Your task to perform on an android device: Show the shopping cart on amazon.com. Add razer blade to the cart on amazon.com Image 0: 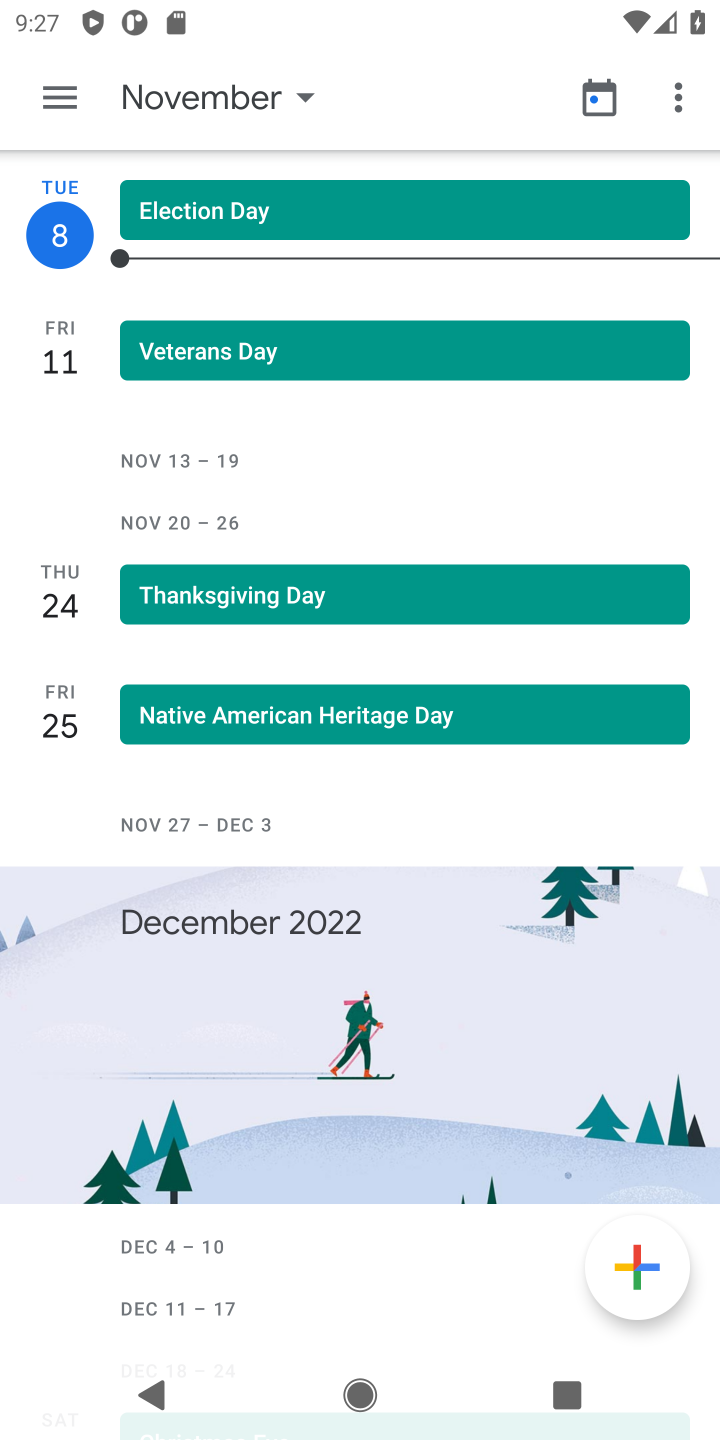
Step 0: press home button
Your task to perform on an android device: Show the shopping cart on amazon.com. Add razer blade to the cart on amazon.com Image 1: 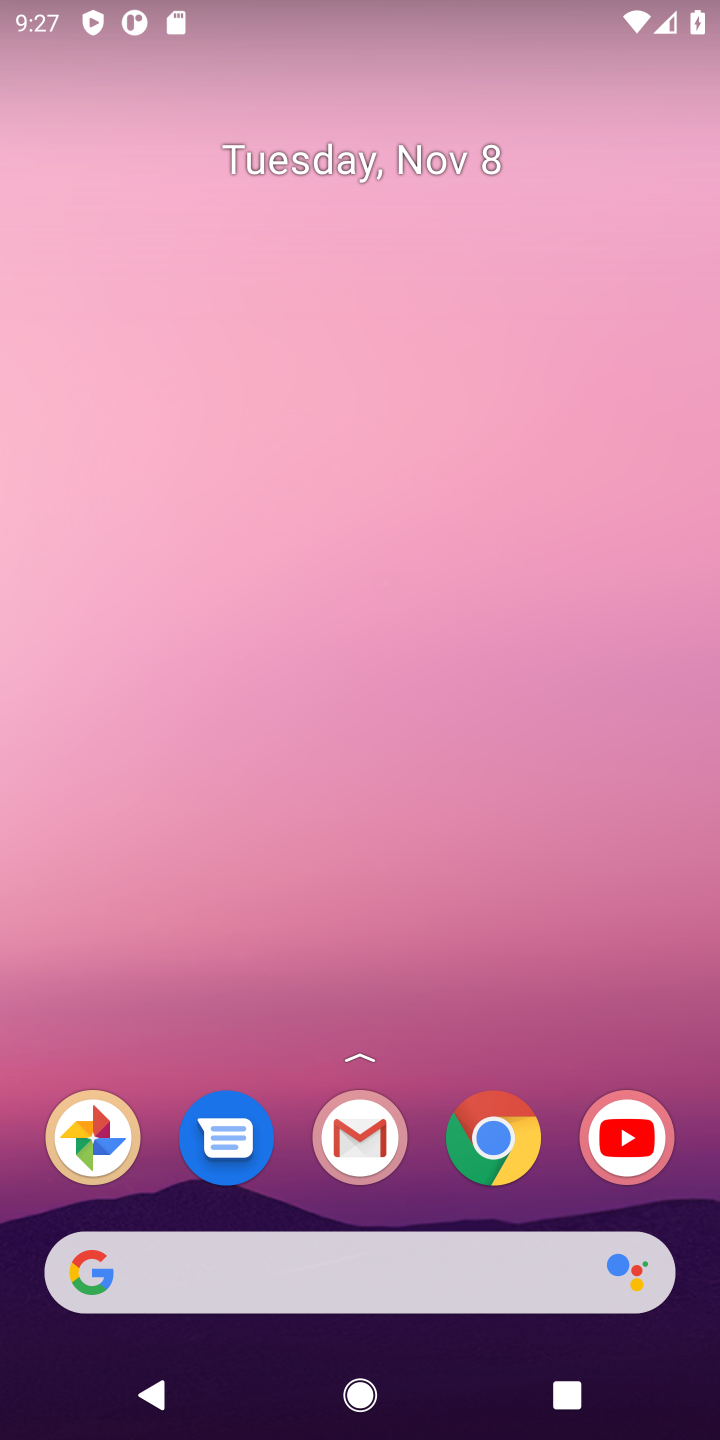
Step 1: click (480, 1143)
Your task to perform on an android device: Show the shopping cart on amazon.com. Add razer blade to the cart on amazon.com Image 2: 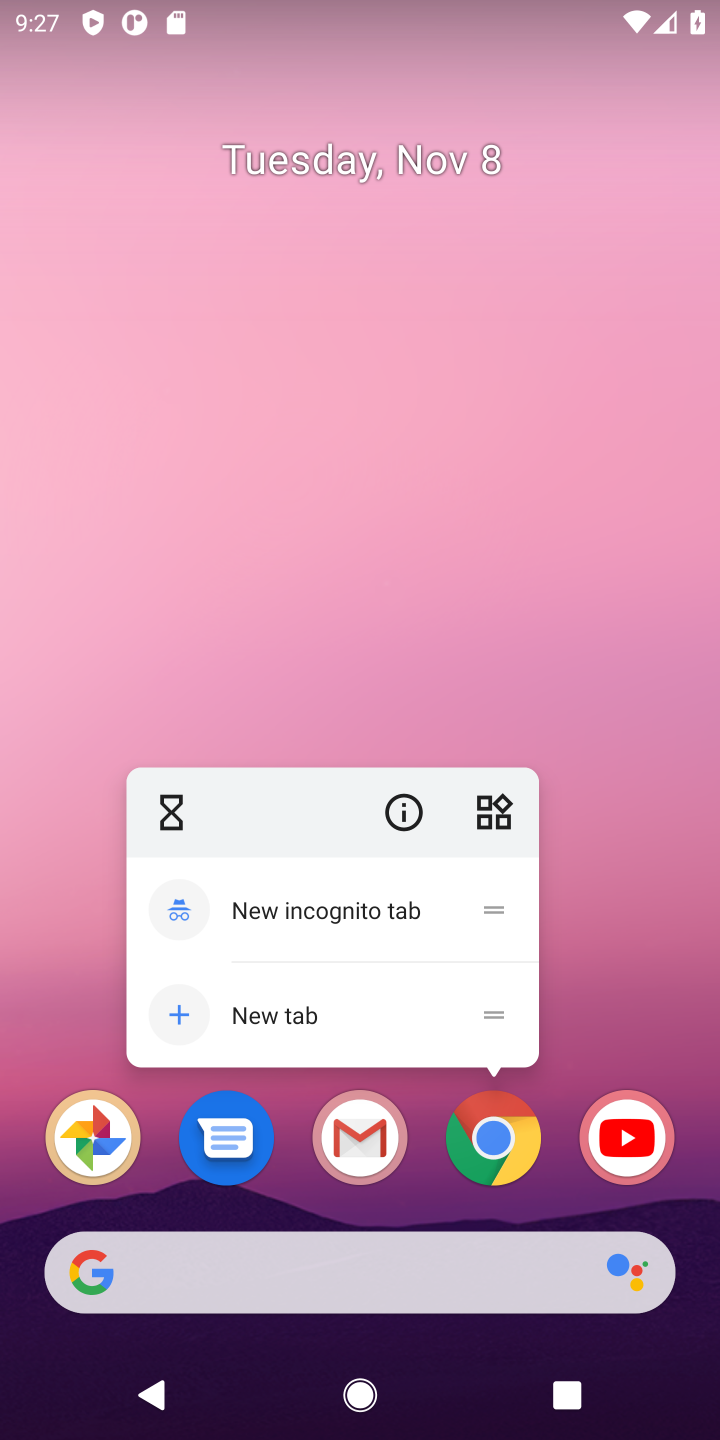
Step 2: click (499, 1145)
Your task to perform on an android device: Show the shopping cart on amazon.com. Add razer blade to the cart on amazon.com Image 3: 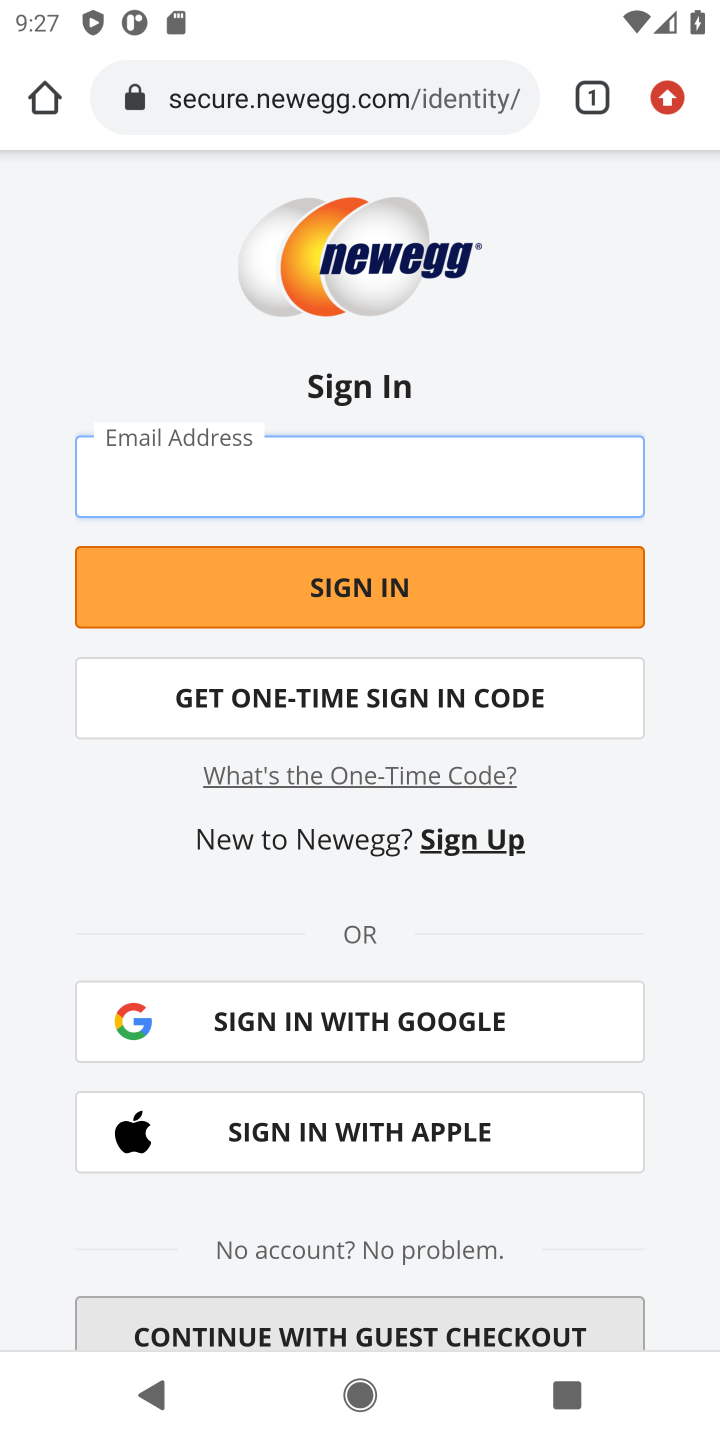
Step 3: click (396, 88)
Your task to perform on an android device: Show the shopping cart on amazon.com. Add razer blade to the cart on amazon.com Image 4: 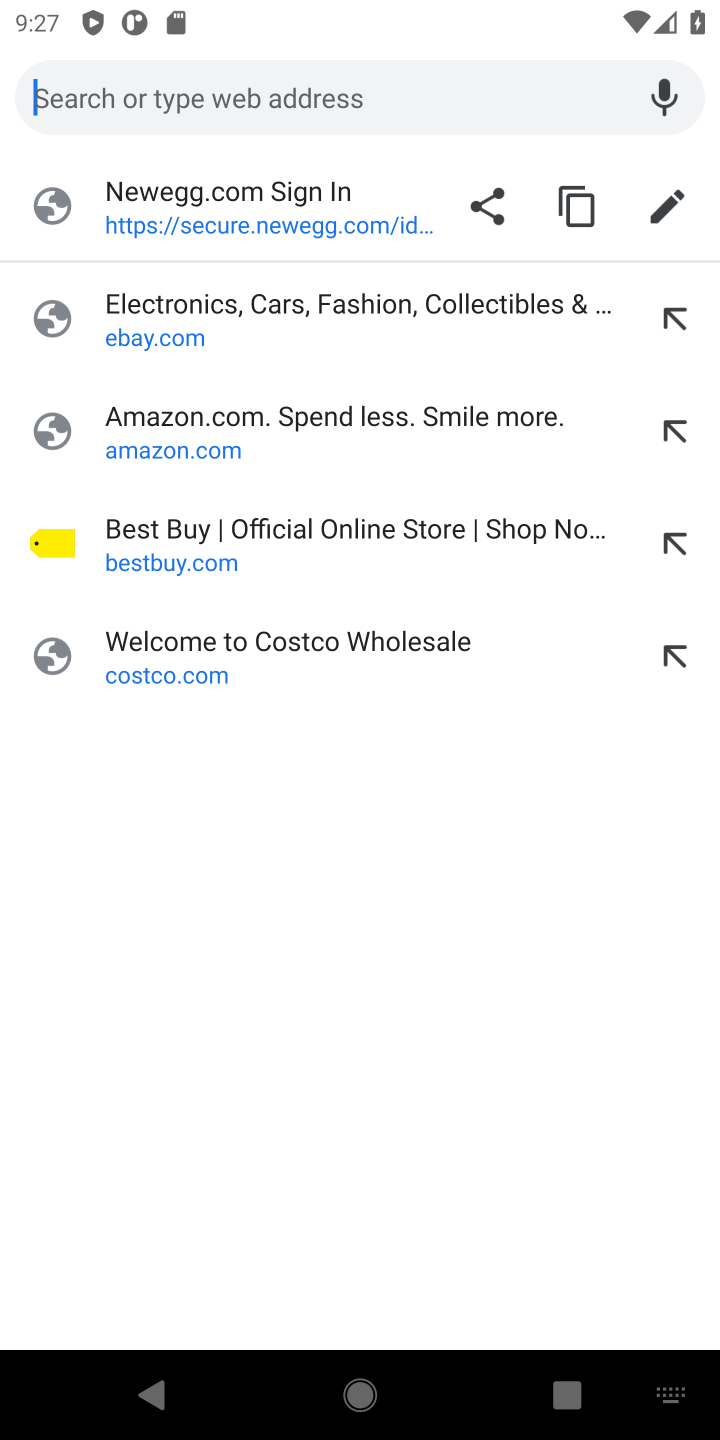
Step 4: click (184, 445)
Your task to perform on an android device: Show the shopping cart on amazon.com. Add razer blade to the cart on amazon.com Image 5: 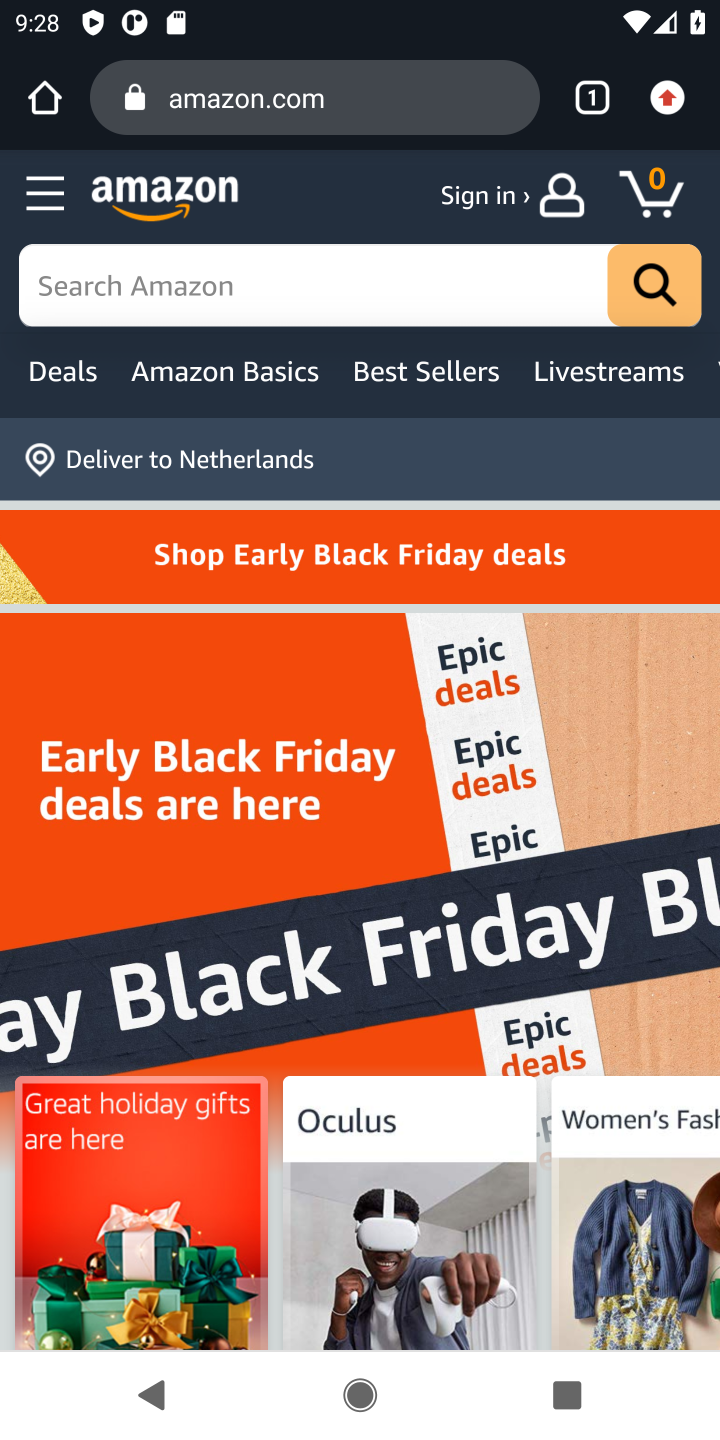
Step 5: click (67, 274)
Your task to perform on an android device: Show the shopping cart on amazon.com. Add razer blade to the cart on amazon.com Image 6: 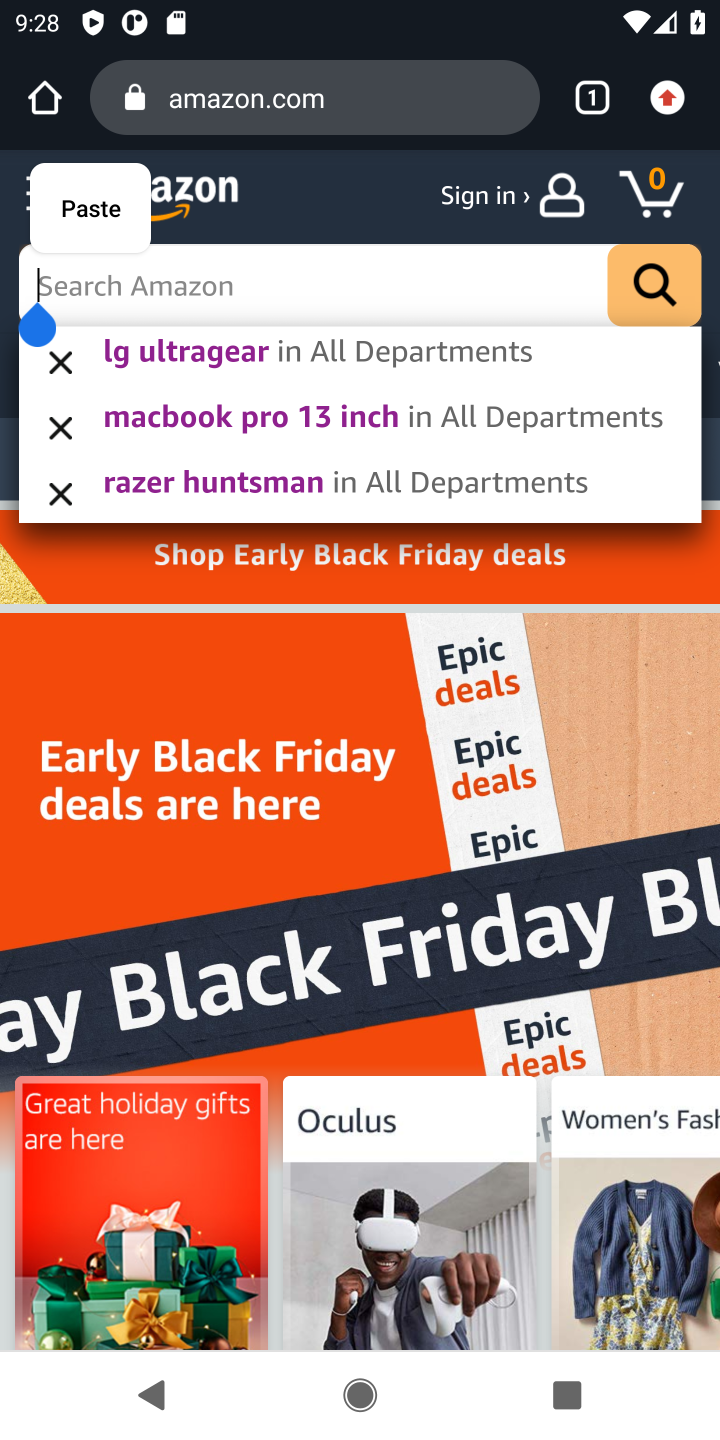
Step 6: press enter
Your task to perform on an android device: Show the shopping cart on amazon.com. Add razer blade to the cart on amazon.com Image 7: 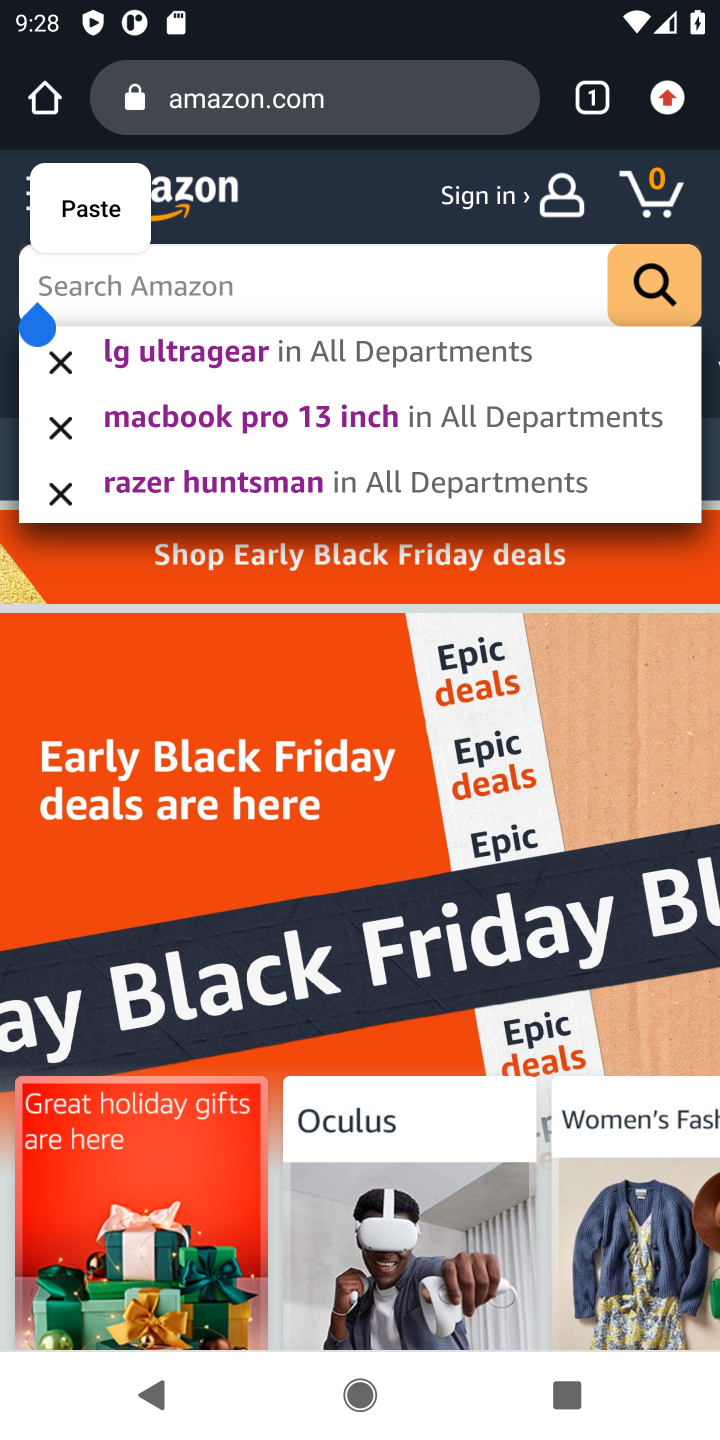
Step 7: type "razer blade"
Your task to perform on an android device: Show the shopping cart on amazon.com. Add razer blade to the cart on amazon.com Image 8: 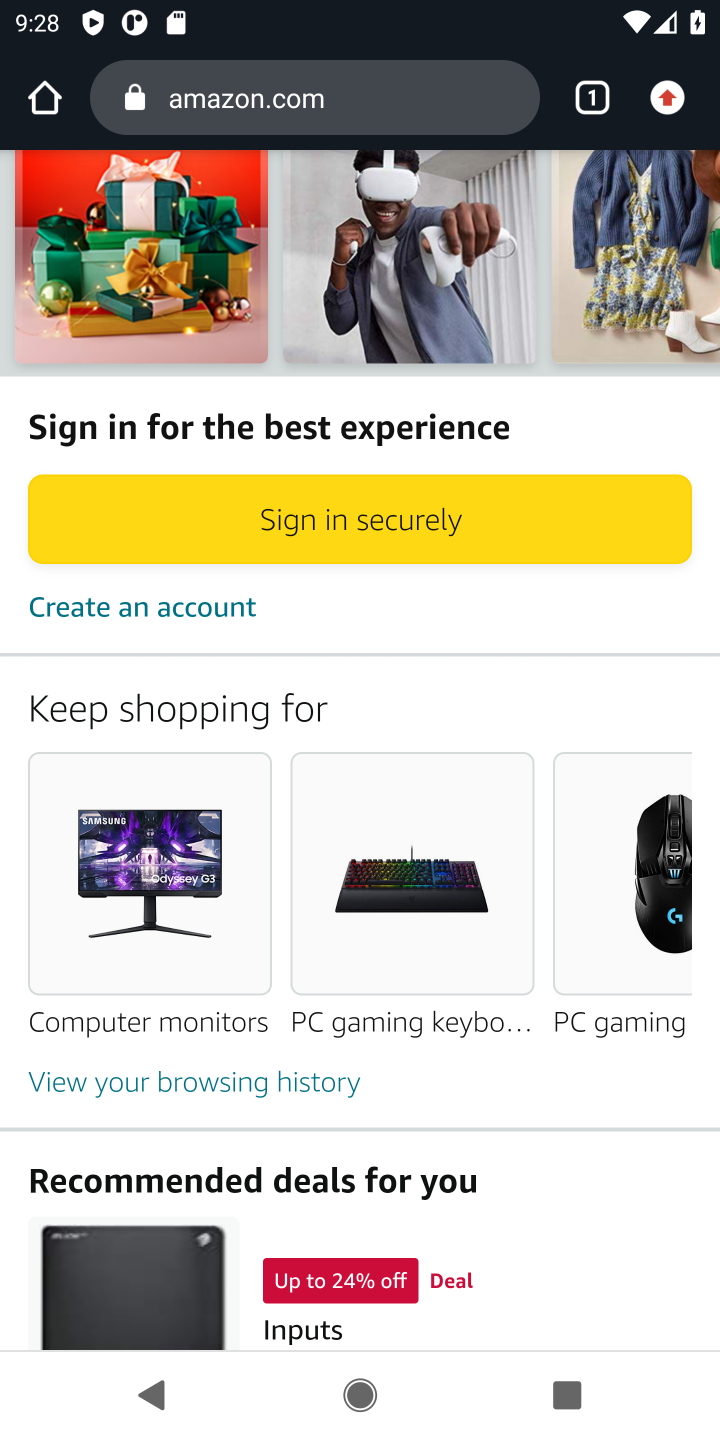
Step 8: drag from (461, 405) to (230, 1236)
Your task to perform on an android device: Show the shopping cart on amazon.com. Add razer blade to the cart on amazon.com Image 9: 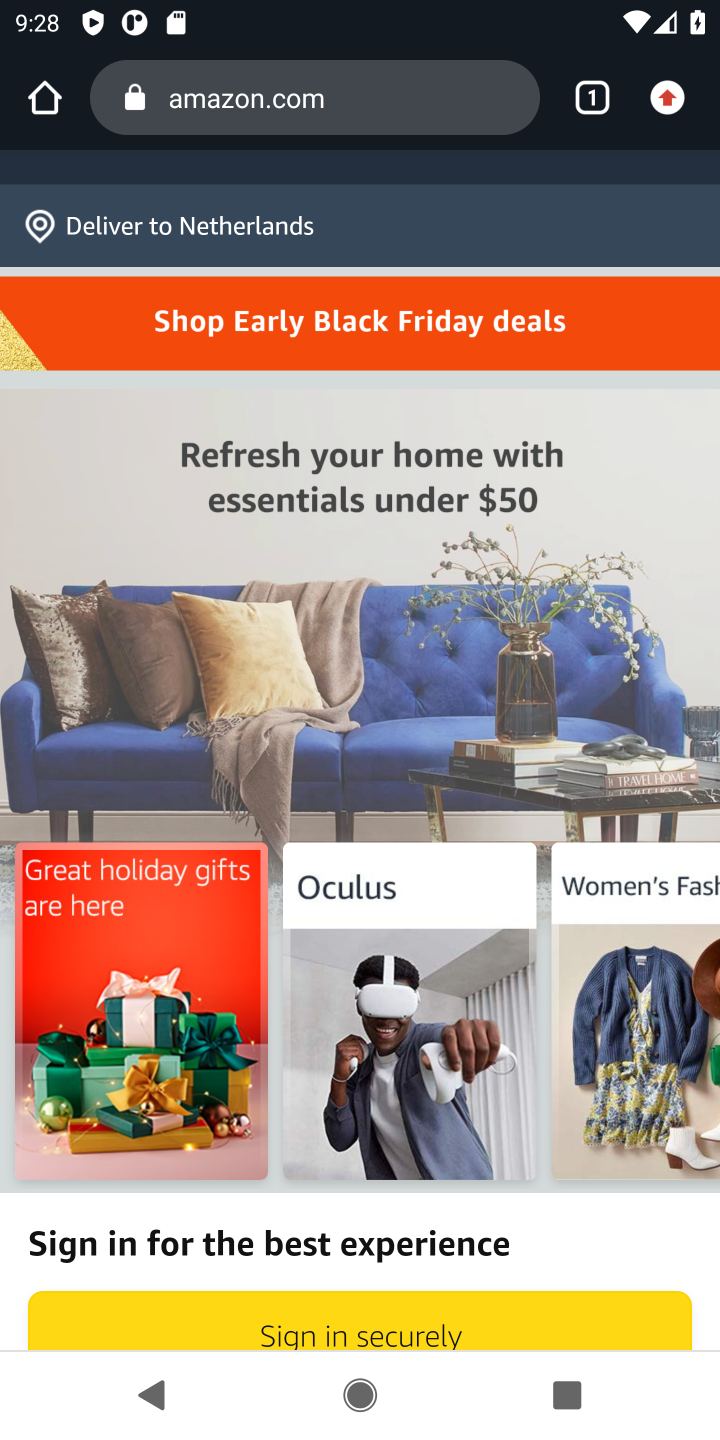
Step 9: drag from (226, 1129) to (160, 1357)
Your task to perform on an android device: Show the shopping cart on amazon.com. Add razer blade to the cart on amazon.com Image 10: 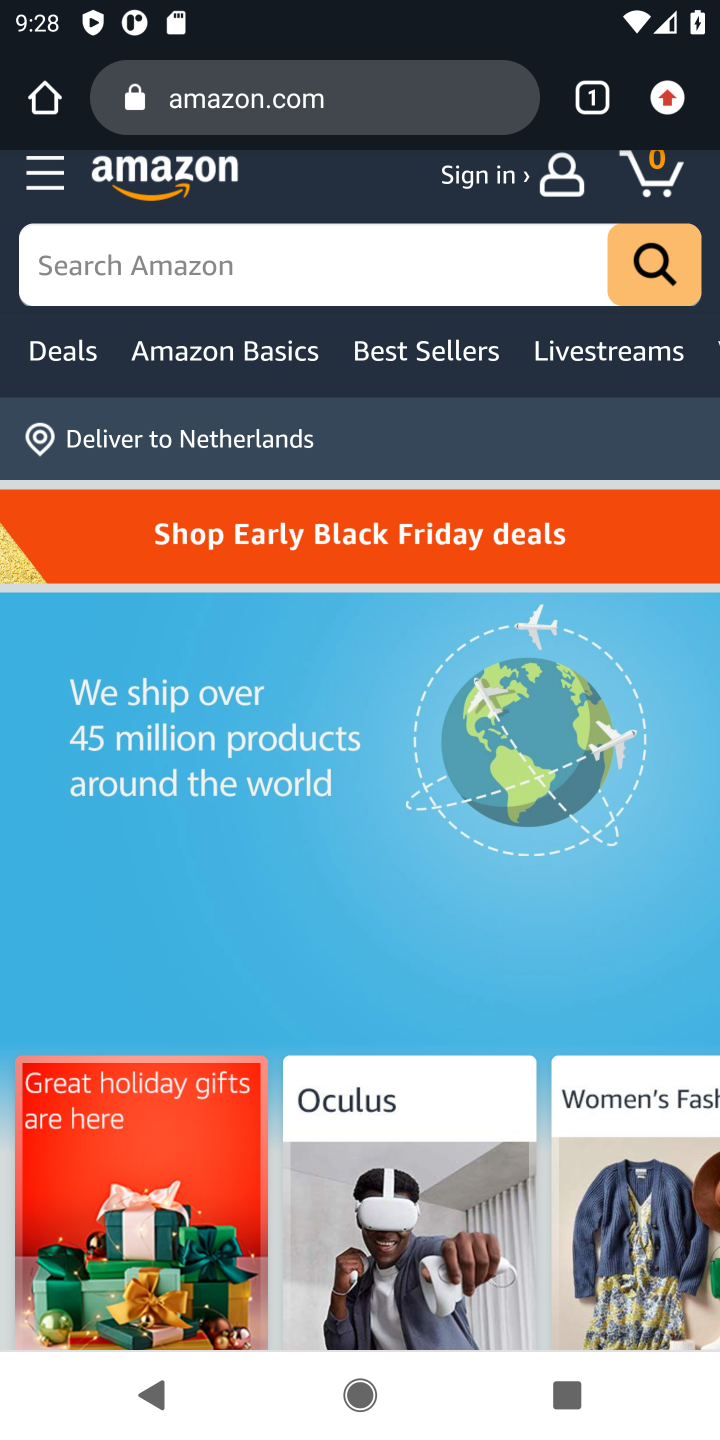
Step 10: click (250, 265)
Your task to perform on an android device: Show the shopping cart on amazon.com. Add razer blade to the cart on amazon.com Image 11: 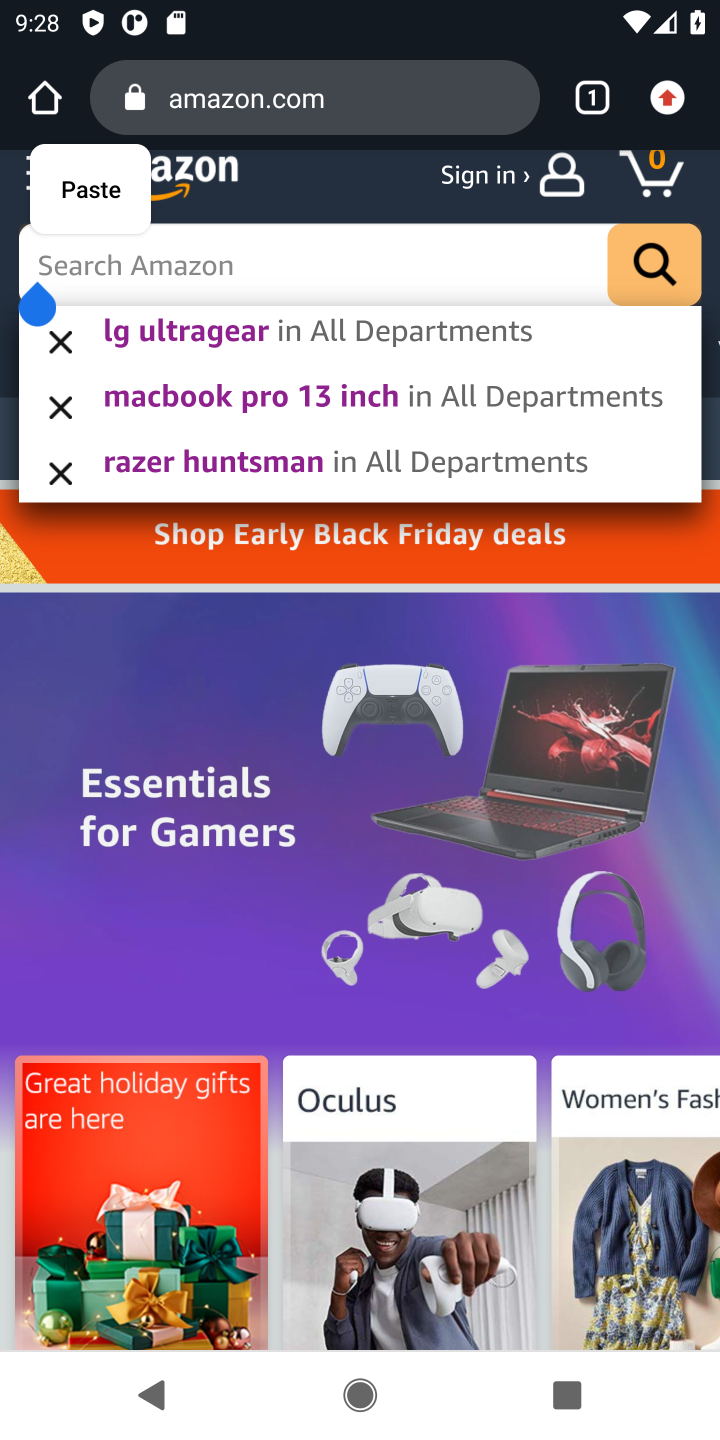
Step 11: type "razer blade"
Your task to perform on an android device: Show the shopping cart on amazon.com. Add razer blade to the cart on amazon.com Image 12: 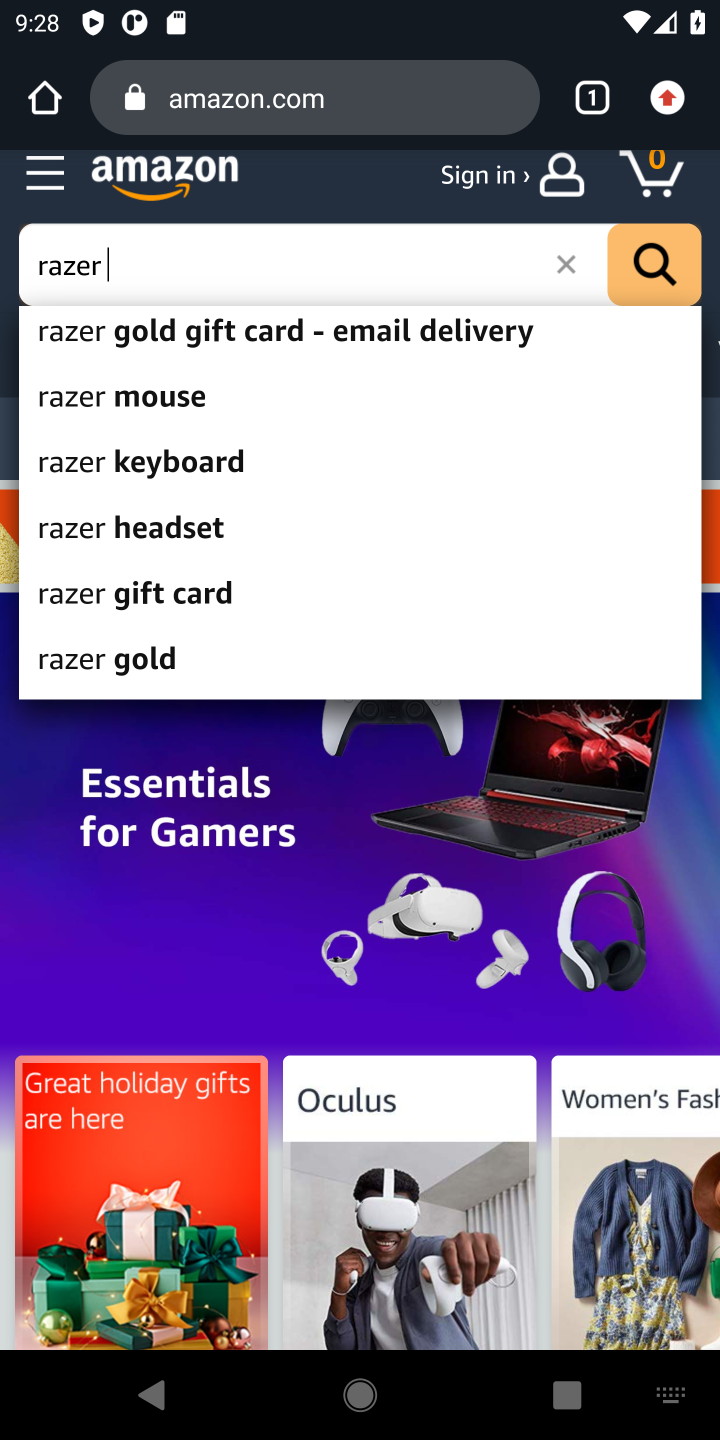
Step 12: press enter
Your task to perform on an android device: Show the shopping cart on amazon.com. Add razer blade to the cart on amazon.com Image 13: 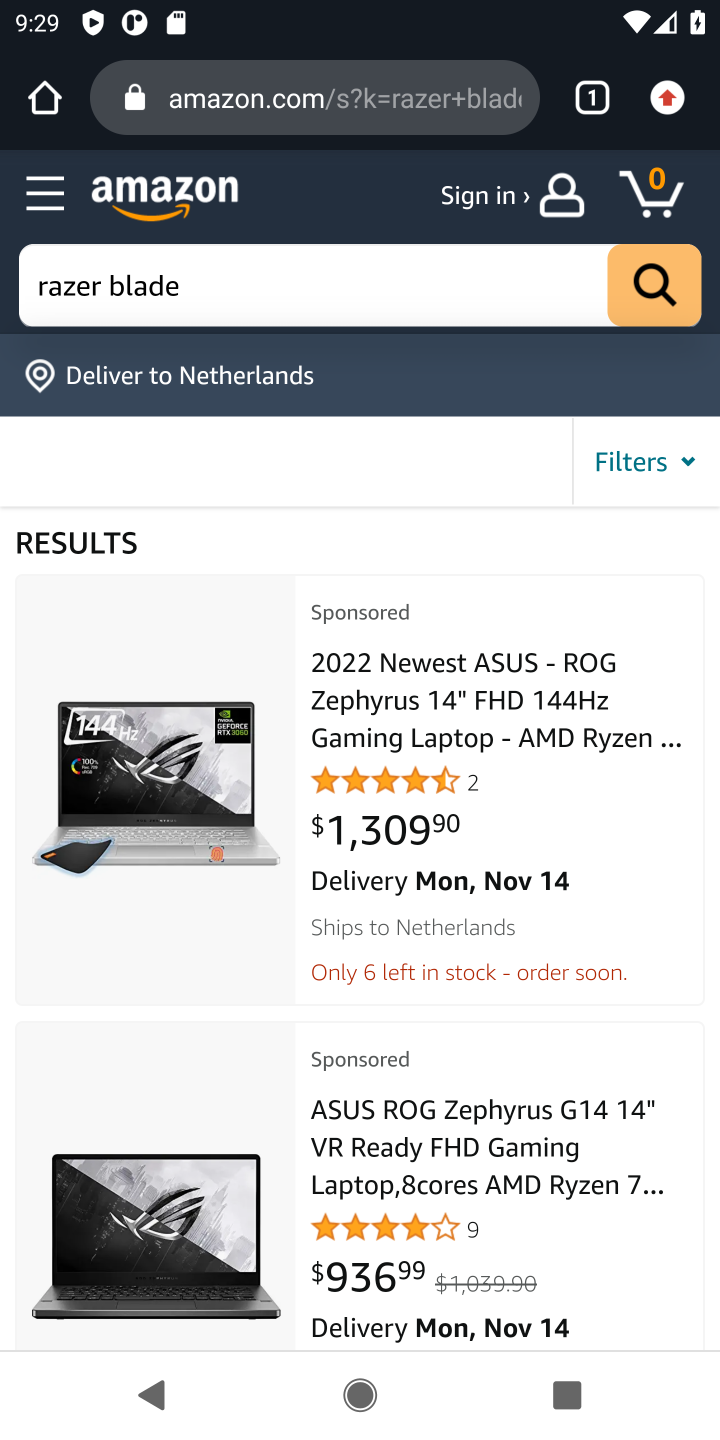
Step 13: drag from (418, 1103) to (567, 335)
Your task to perform on an android device: Show the shopping cart on amazon.com. Add razer blade to the cart on amazon.com Image 14: 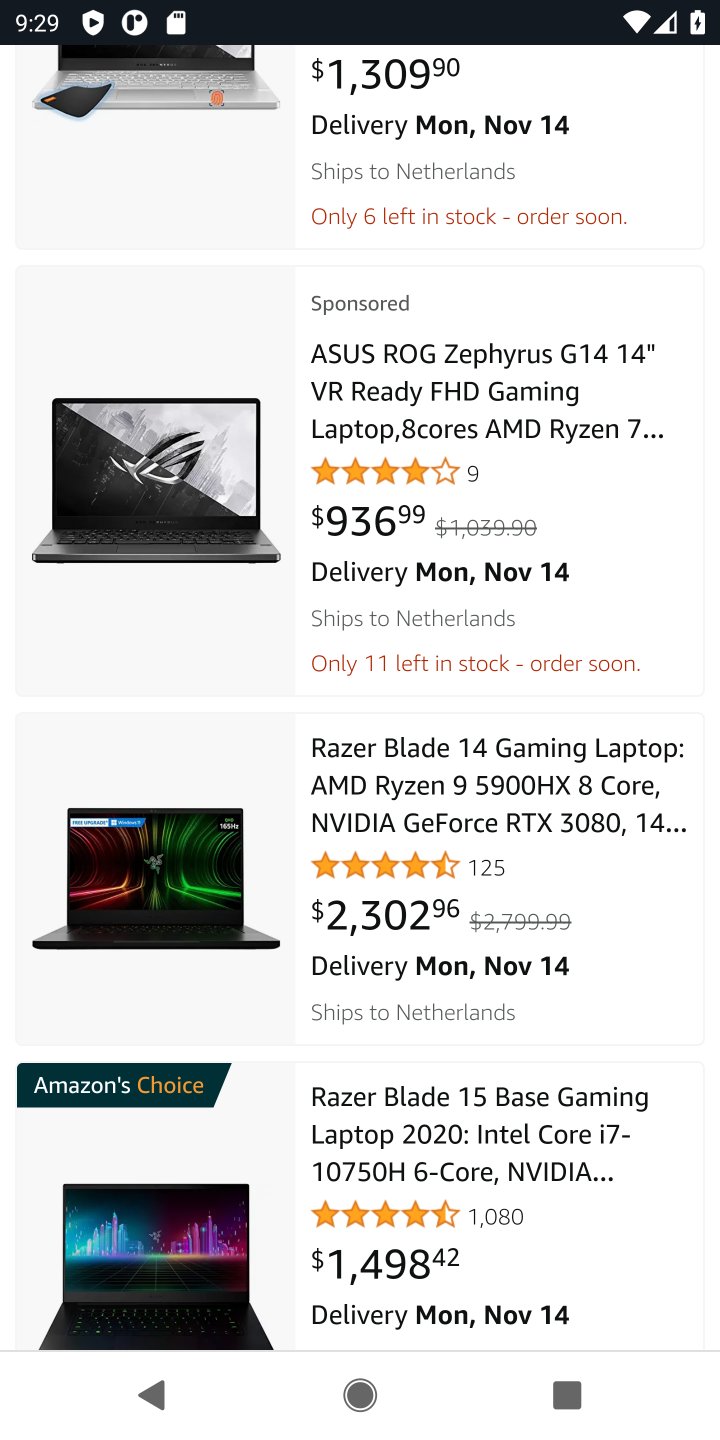
Step 14: click (405, 793)
Your task to perform on an android device: Show the shopping cart on amazon.com. Add razer blade to the cart on amazon.com Image 15: 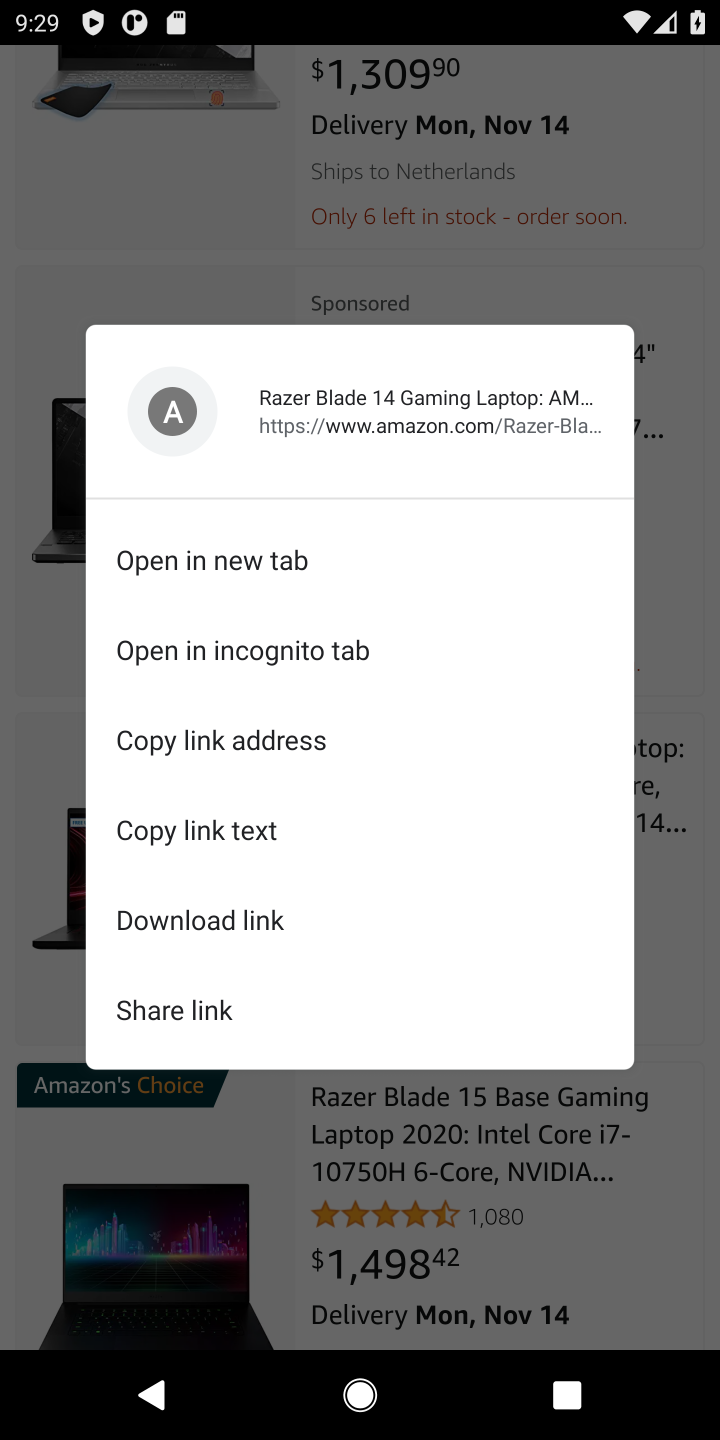
Step 15: click (657, 822)
Your task to perform on an android device: Show the shopping cart on amazon.com. Add razer blade to the cart on amazon.com Image 16: 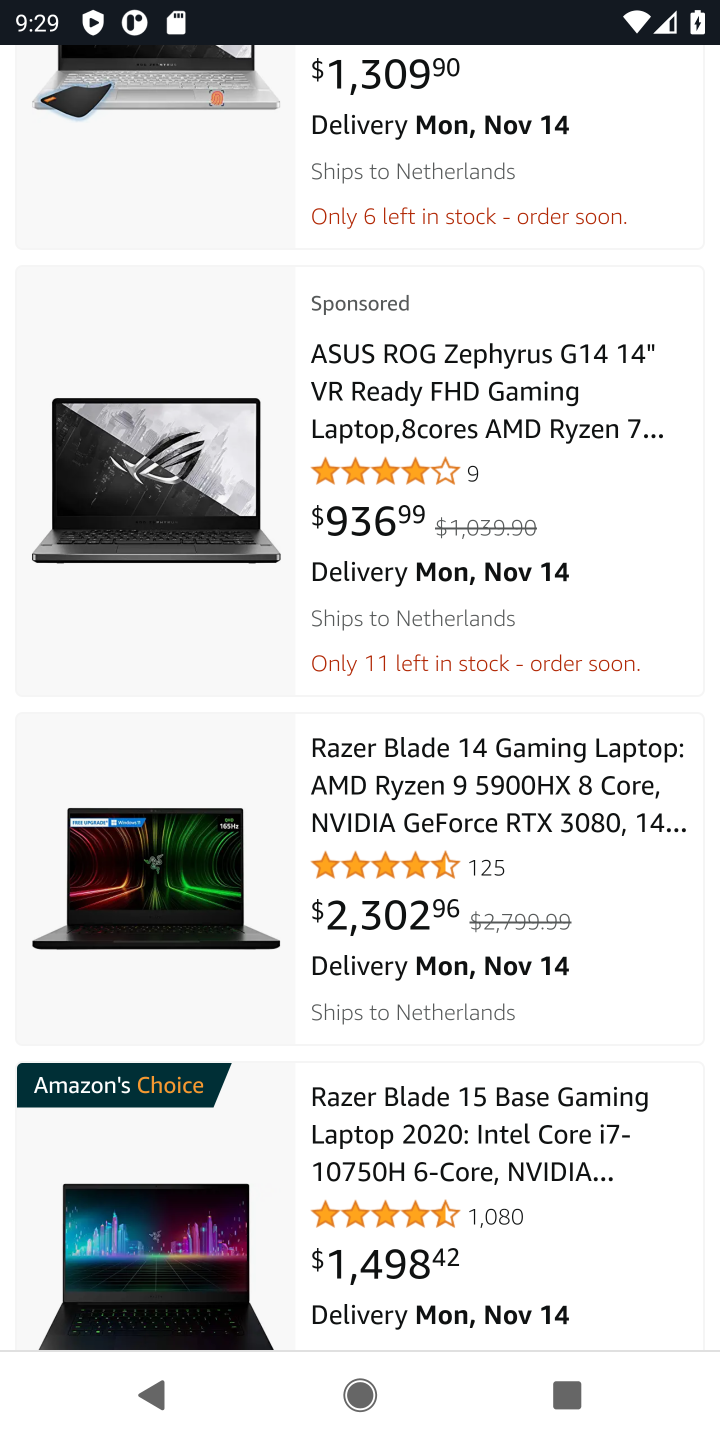
Step 16: click (446, 797)
Your task to perform on an android device: Show the shopping cart on amazon.com. Add razer blade to the cart on amazon.com Image 17: 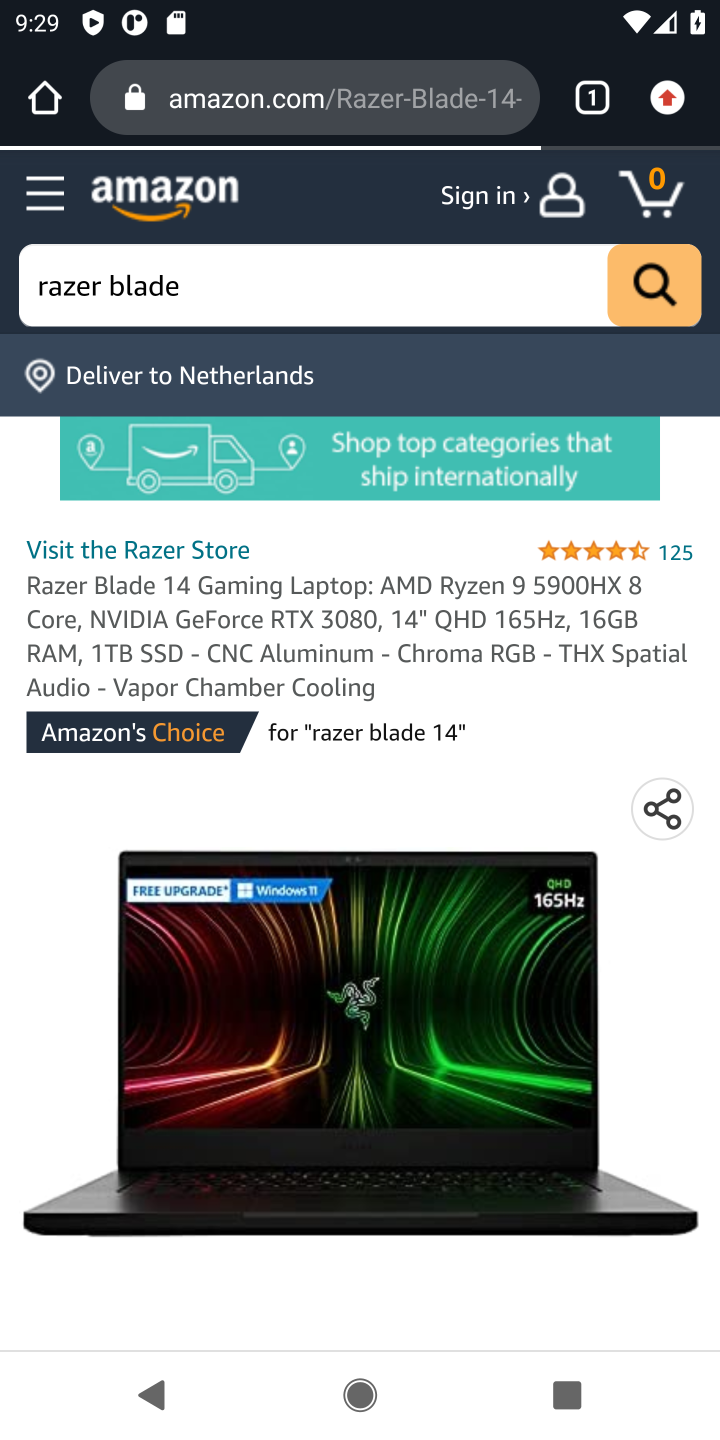
Step 17: drag from (363, 1113) to (680, 405)
Your task to perform on an android device: Show the shopping cart on amazon.com. Add razer blade to the cart on amazon.com Image 18: 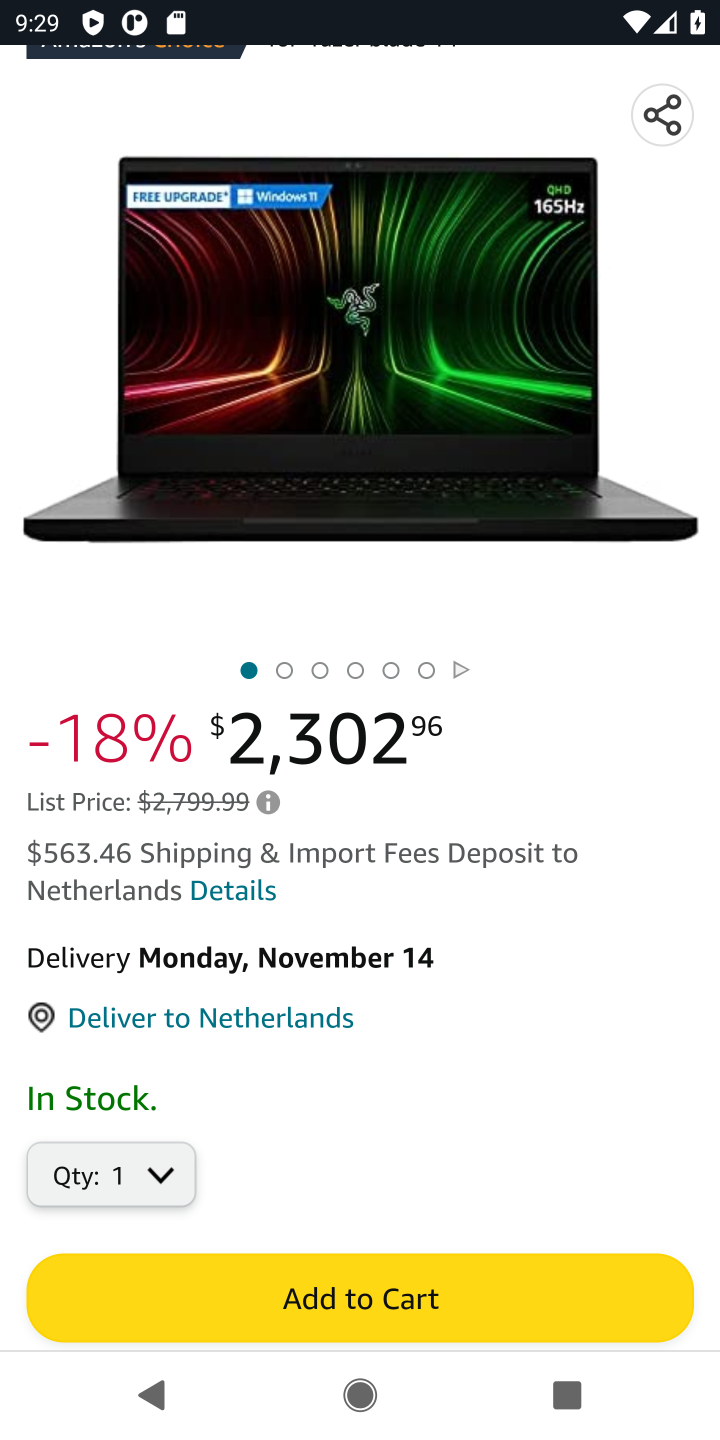
Step 18: click (362, 1286)
Your task to perform on an android device: Show the shopping cart on amazon.com. Add razer blade to the cart on amazon.com Image 19: 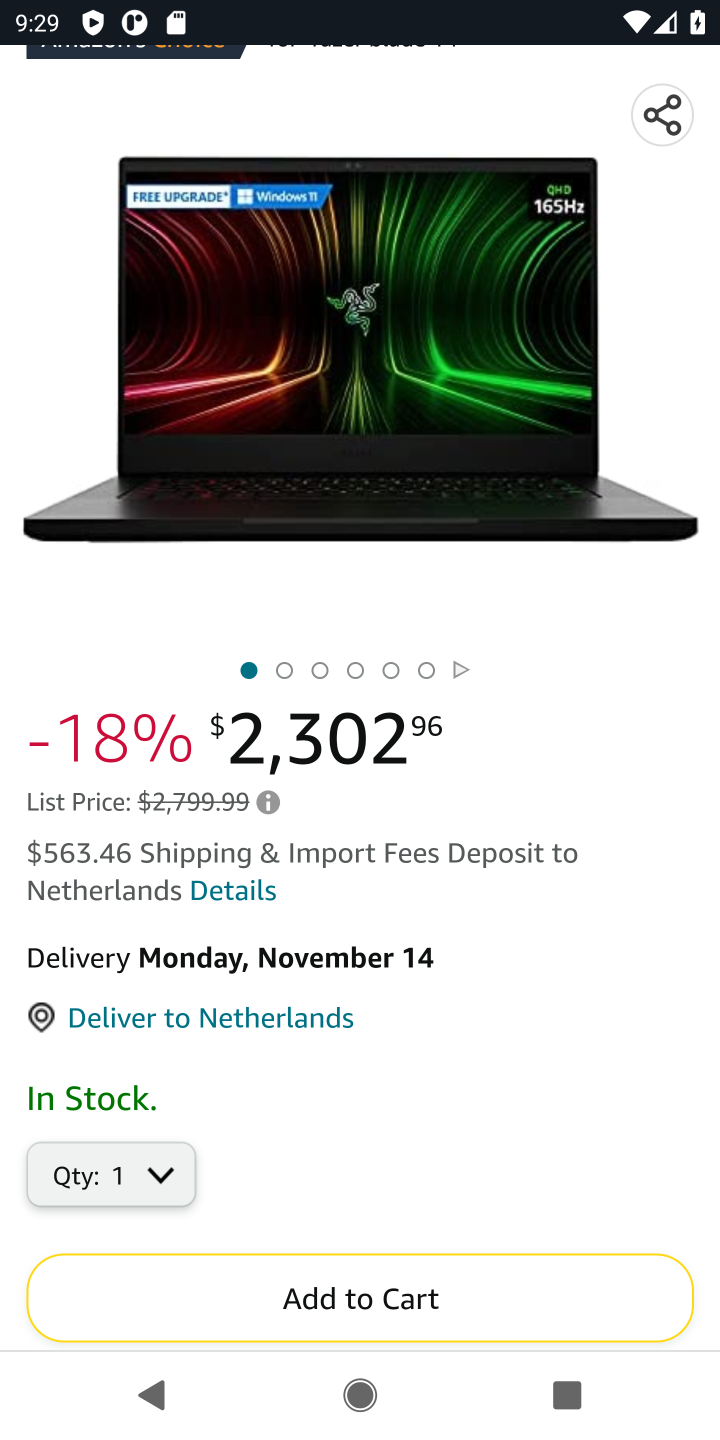
Step 19: click (395, 1305)
Your task to perform on an android device: Show the shopping cart on amazon.com. Add razer blade to the cart on amazon.com Image 20: 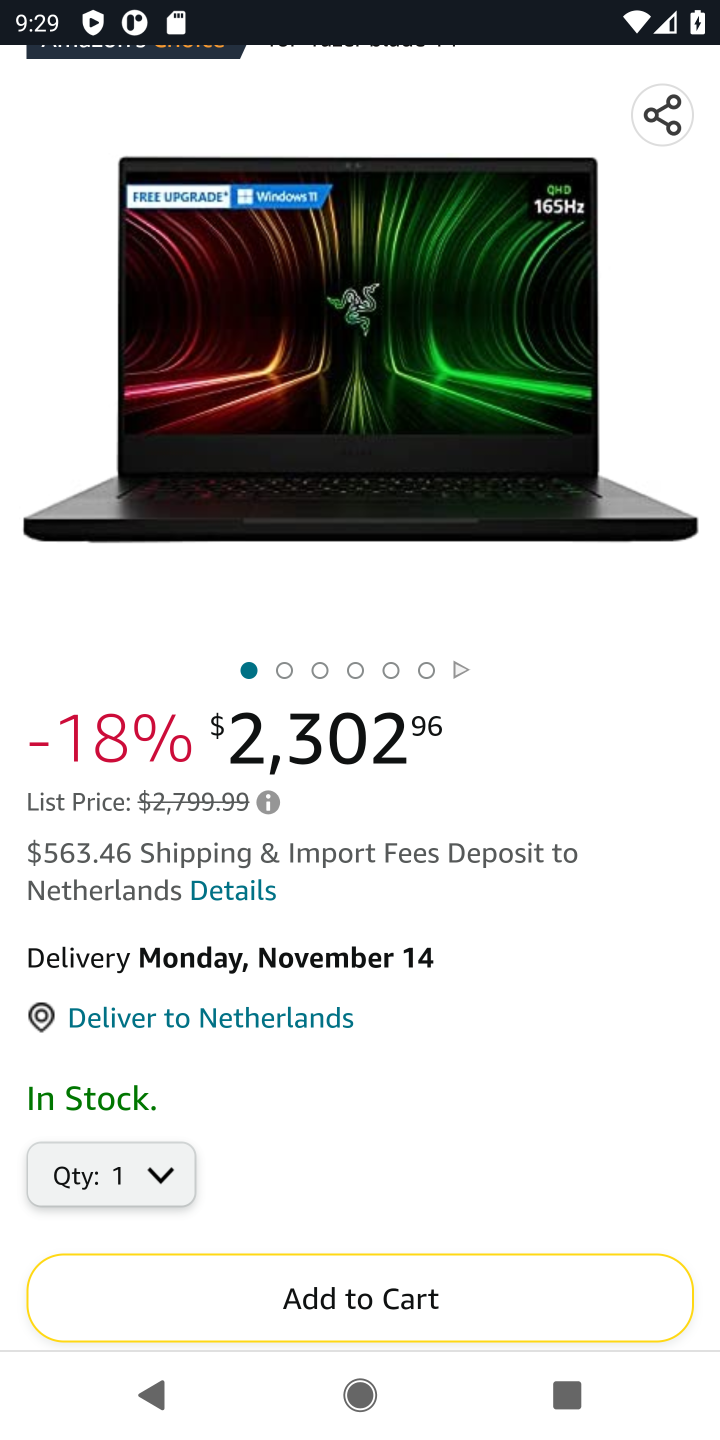
Step 20: drag from (550, 627) to (575, 449)
Your task to perform on an android device: Show the shopping cart on amazon.com. Add razer blade to the cart on amazon.com Image 21: 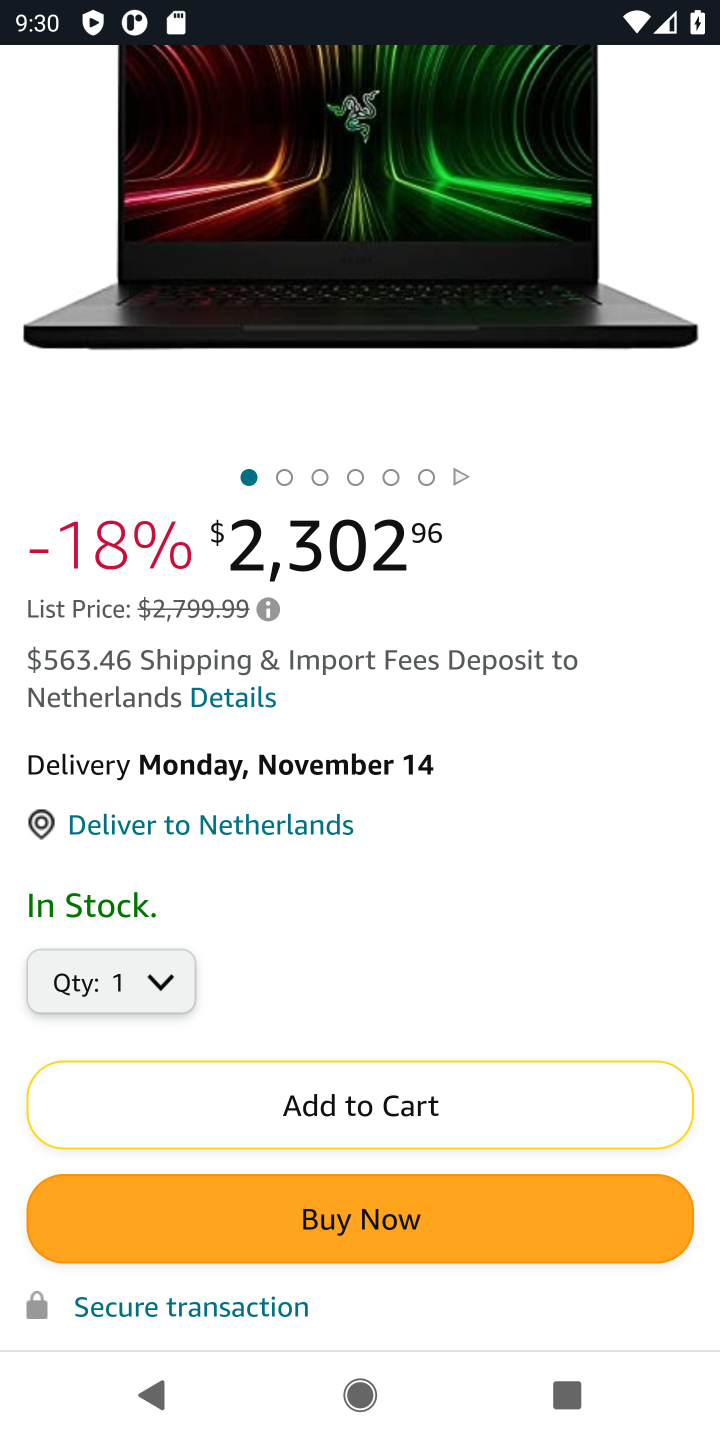
Step 21: click (351, 1092)
Your task to perform on an android device: Show the shopping cart on amazon.com. Add razer blade to the cart on amazon.com Image 22: 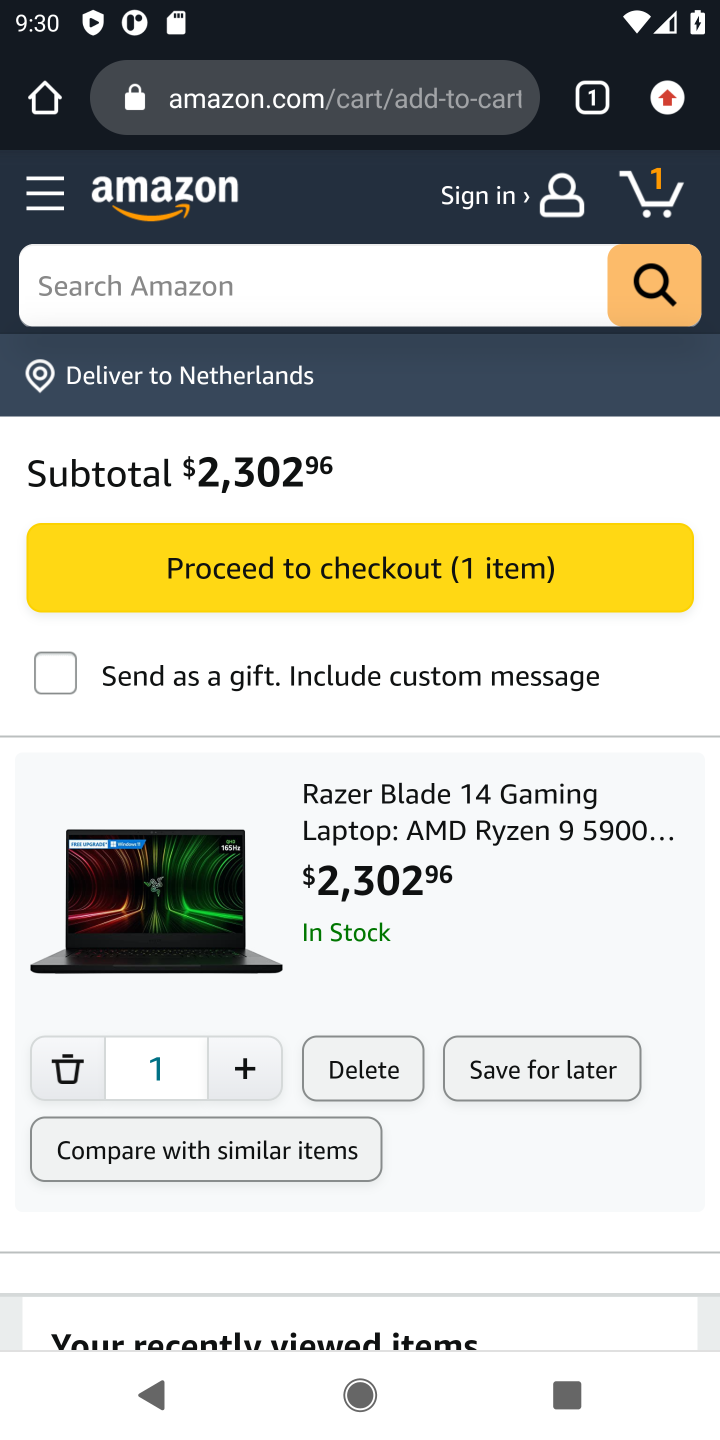
Step 22: task complete